Your task to perform on an android device: toggle notification dots Image 0: 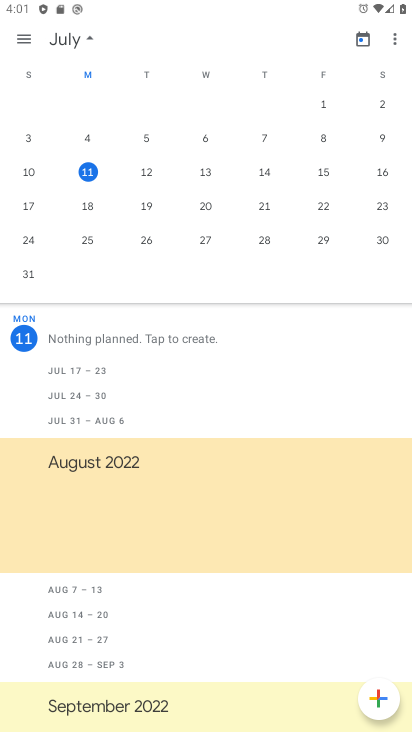
Step 0: press home button
Your task to perform on an android device: toggle notification dots Image 1: 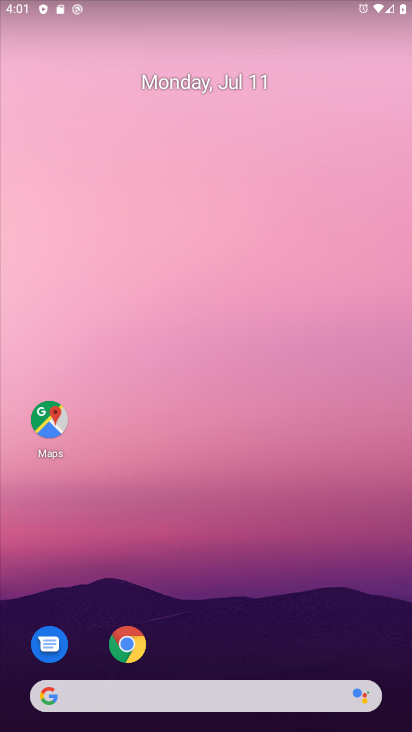
Step 1: drag from (258, 610) to (249, 160)
Your task to perform on an android device: toggle notification dots Image 2: 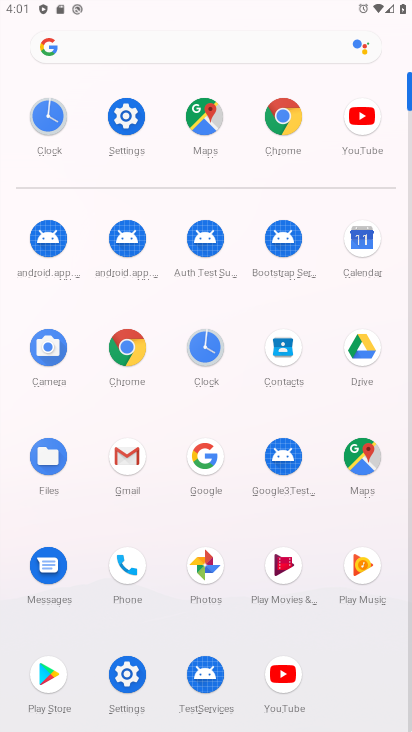
Step 2: click (124, 128)
Your task to perform on an android device: toggle notification dots Image 3: 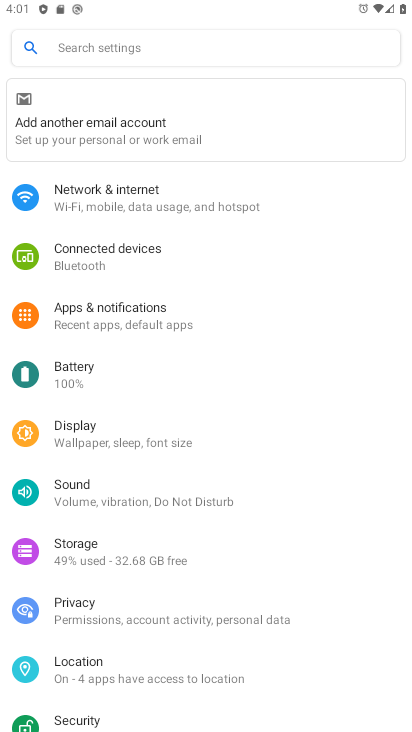
Step 3: click (145, 318)
Your task to perform on an android device: toggle notification dots Image 4: 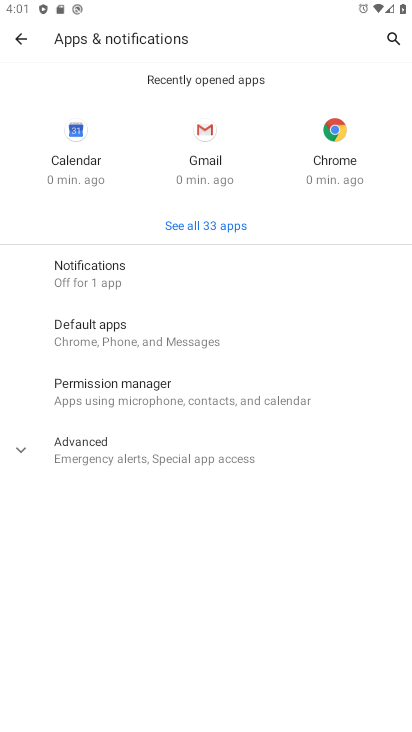
Step 4: click (152, 279)
Your task to perform on an android device: toggle notification dots Image 5: 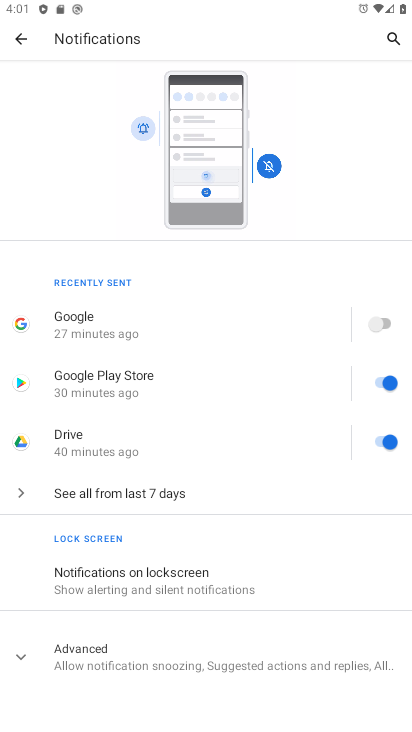
Step 5: click (20, 657)
Your task to perform on an android device: toggle notification dots Image 6: 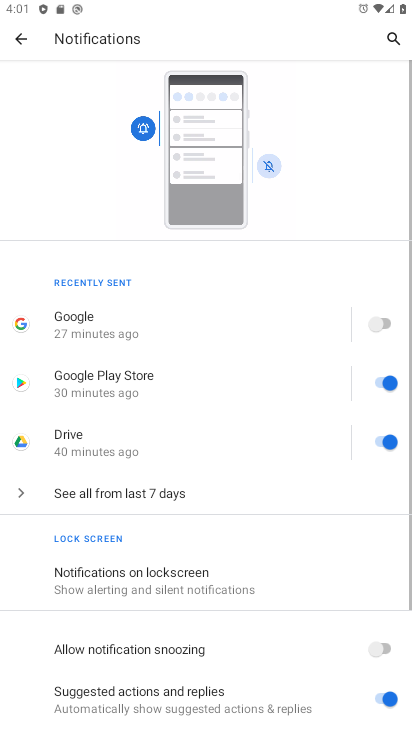
Step 6: drag from (293, 589) to (276, 301)
Your task to perform on an android device: toggle notification dots Image 7: 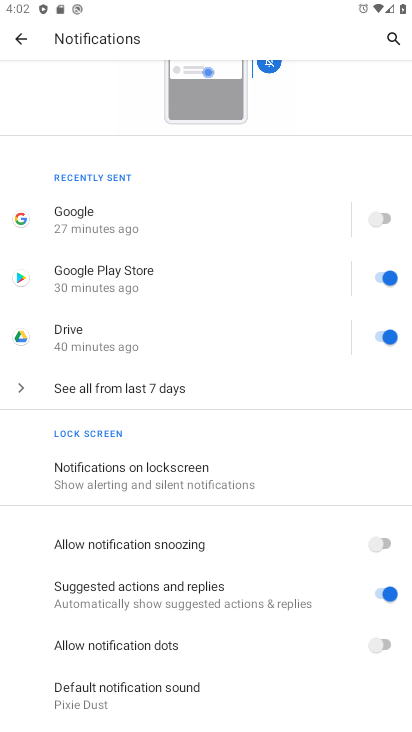
Step 7: click (377, 653)
Your task to perform on an android device: toggle notification dots Image 8: 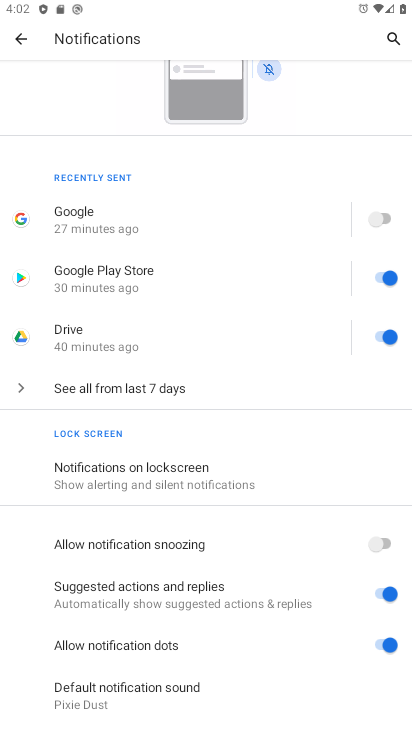
Step 8: task complete